Your task to perform on an android device: open chrome and create a bookmark for the current page Image 0: 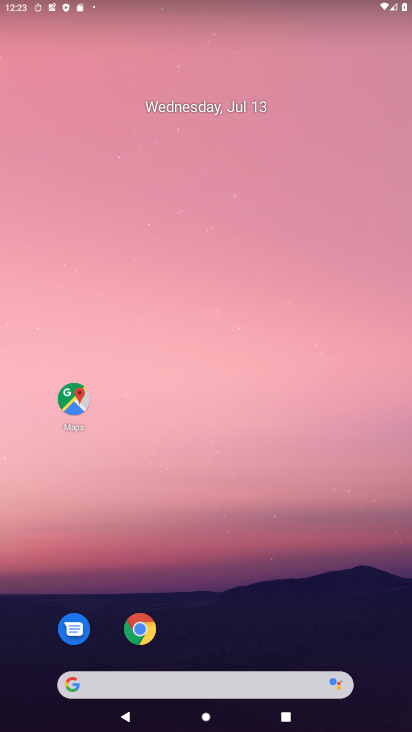
Step 0: click (136, 612)
Your task to perform on an android device: open chrome and create a bookmark for the current page Image 1: 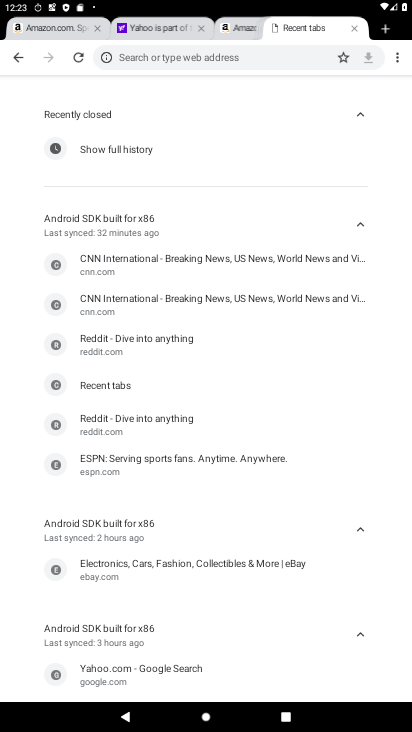
Step 1: click (383, 25)
Your task to perform on an android device: open chrome and create a bookmark for the current page Image 2: 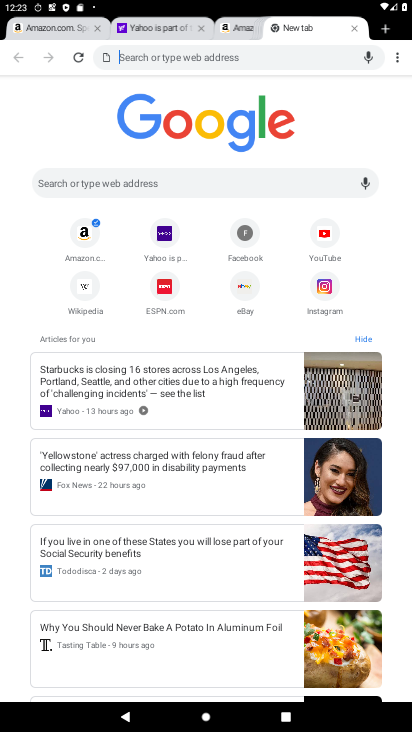
Step 2: click (191, 402)
Your task to perform on an android device: open chrome and create a bookmark for the current page Image 3: 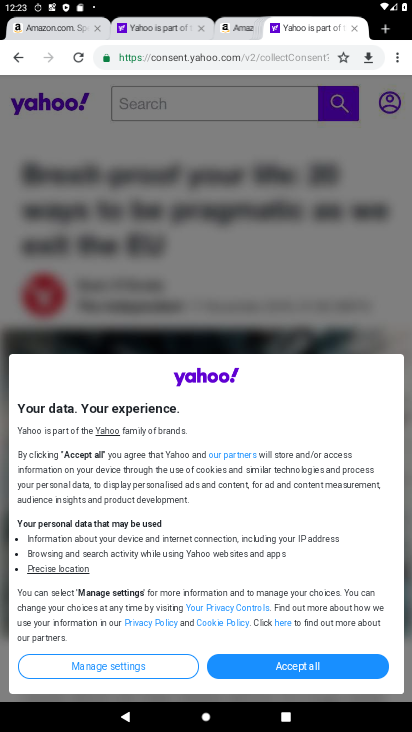
Step 3: click (346, 59)
Your task to perform on an android device: open chrome and create a bookmark for the current page Image 4: 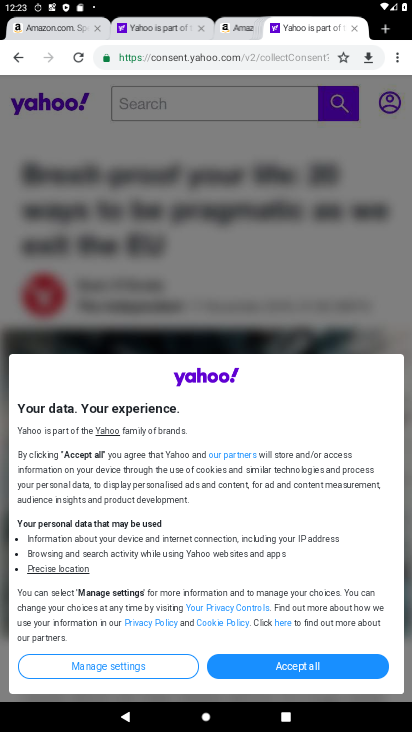
Step 4: task complete